Your task to perform on an android device: Clear all items from cart on costco. Search for "bose quietcomfort 35" on costco, select the first entry, and add it to the cart. Image 0: 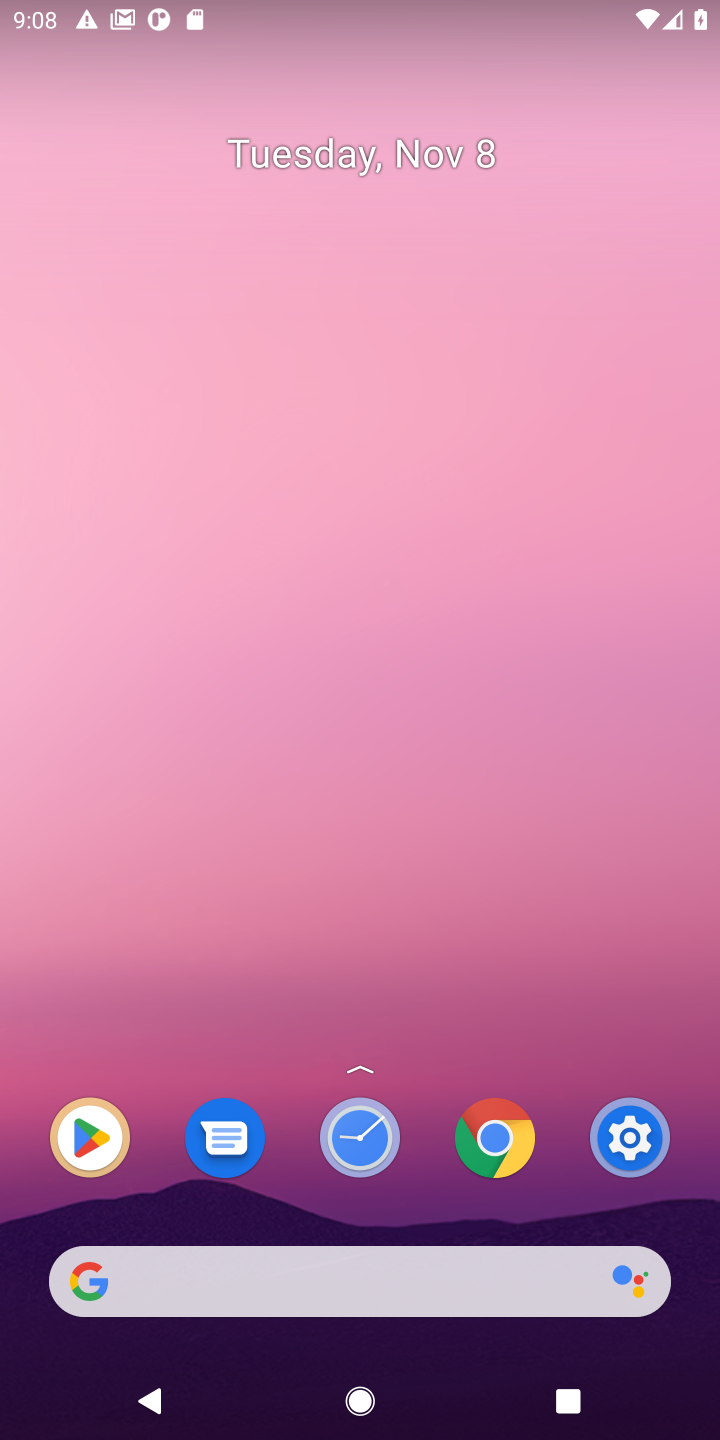
Step 0: drag from (312, 500) to (329, 227)
Your task to perform on an android device: Clear all items from cart on costco. Search for "bose quietcomfort 35" on costco, select the first entry, and add it to the cart. Image 1: 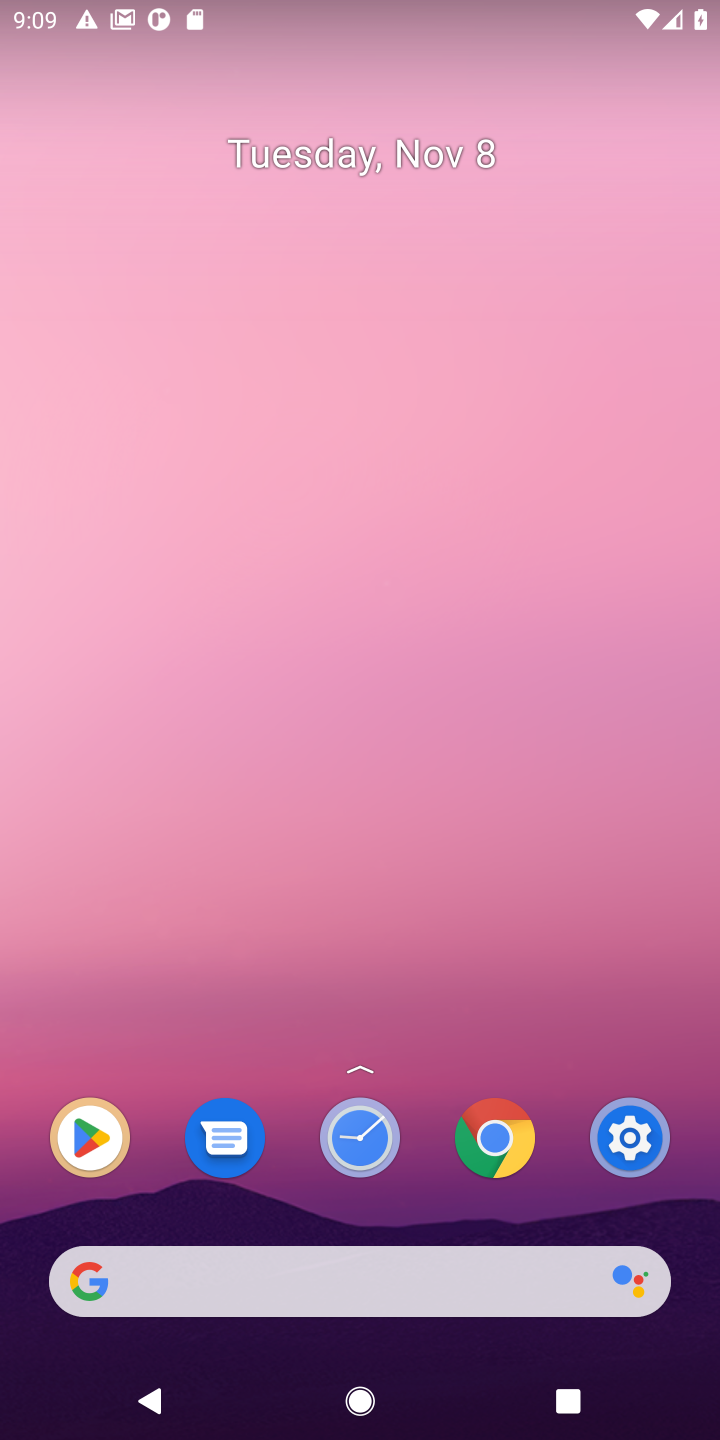
Step 1: drag from (463, 1117) to (560, 274)
Your task to perform on an android device: Clear all items from cart on costco. Search for "bose quietcomfort 35" on costco, select the first entry, and add it to the cart. Image 2: 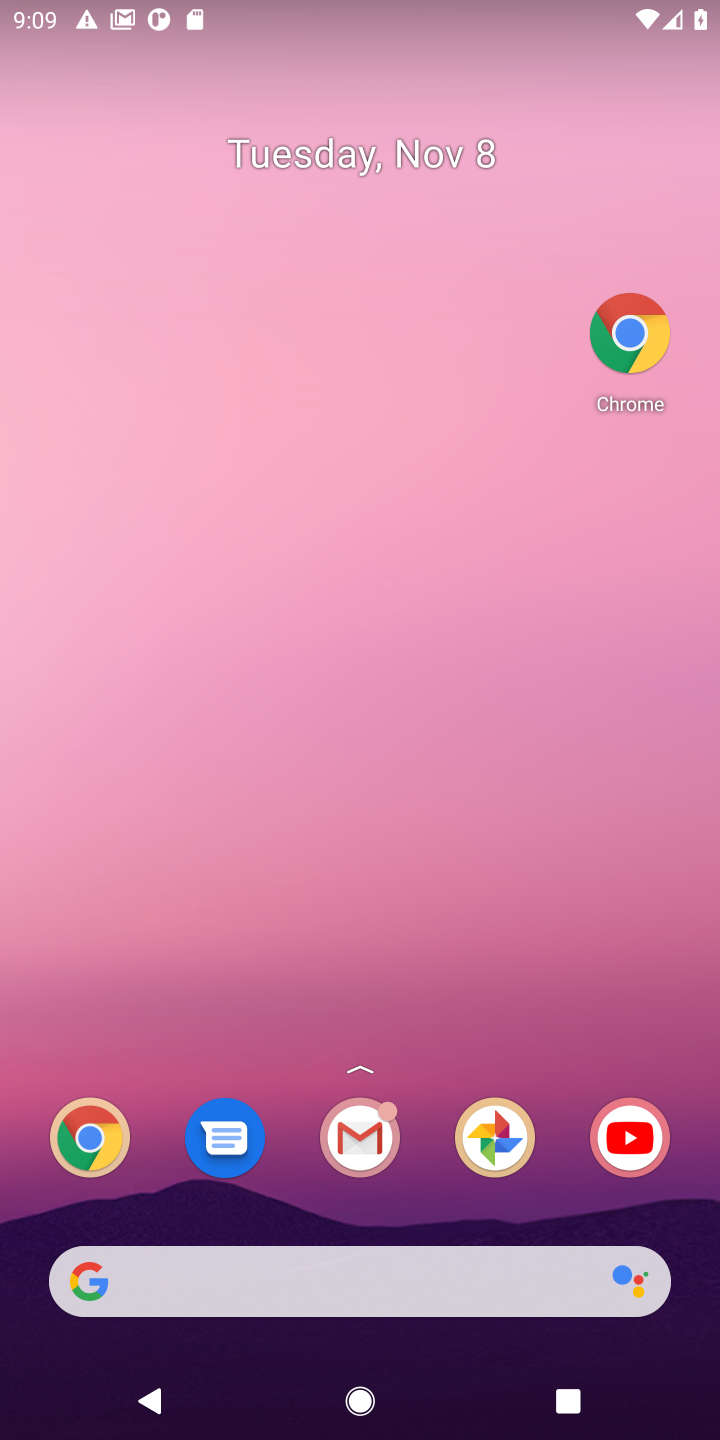
Step 2: drag from (360, 1271) to (402, 280)
Your task to perform on an android device: Clear all items from cart on costco. Search for "bose quietcomfort 35" on costco, select the first entry, and add it to the cart. Image 3: 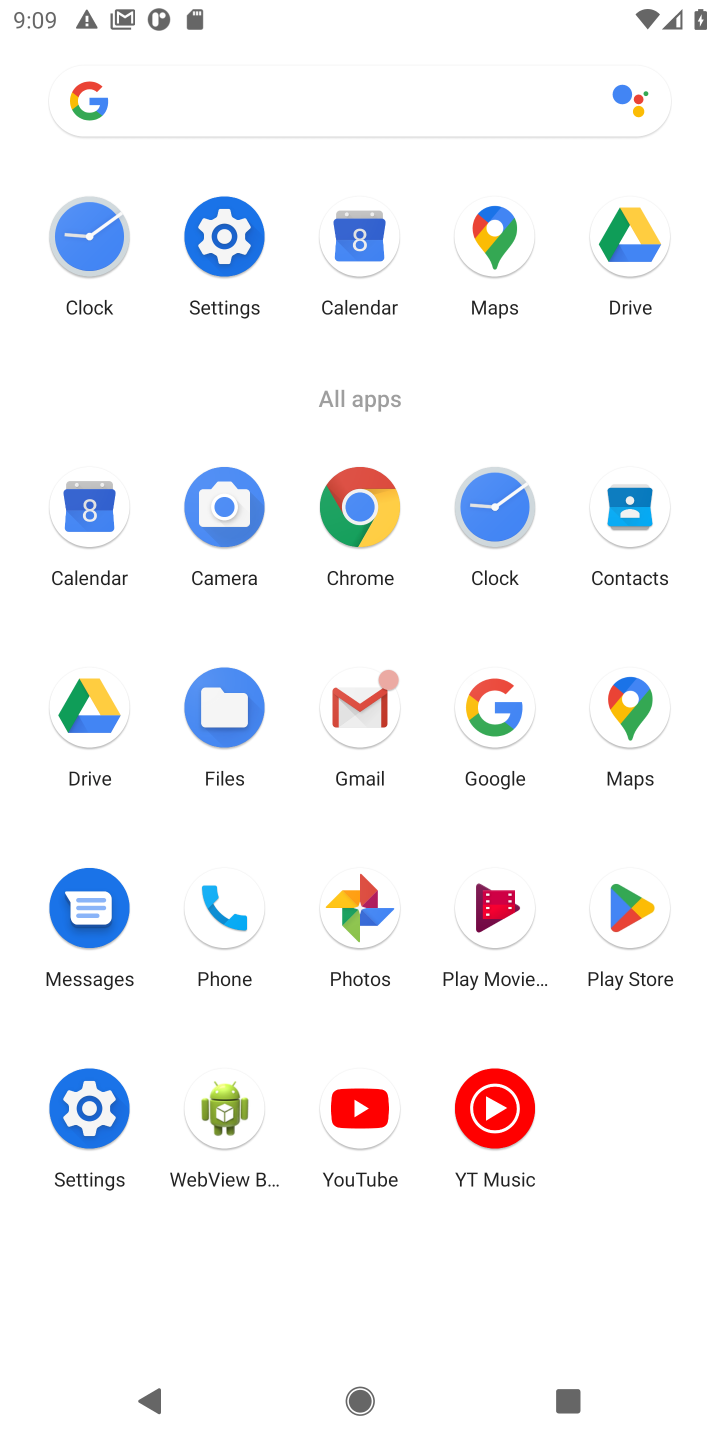
Step 3: click (363, 509)
Your task to perform on an android device: Clear all items from cart on costco. Search for "bose quietcomfort 35" on costco, select the first entry, and add it to the cart. Image 4: 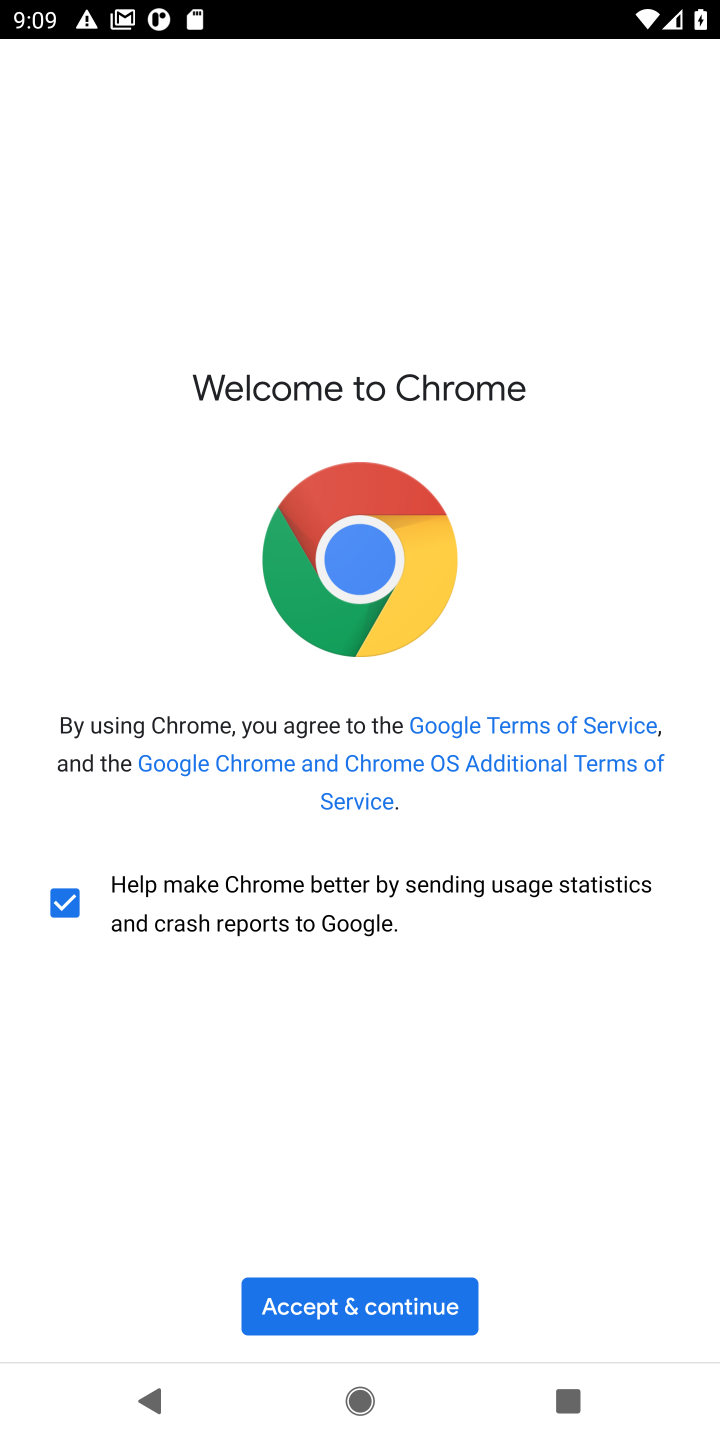
Step 4: click (421, 1324)
Your task to perform on an android device: Clear all items from cart on costco. Search for "bose quietcomfort 35" on costco, select the first entry, and add it to the cart. Image 5: 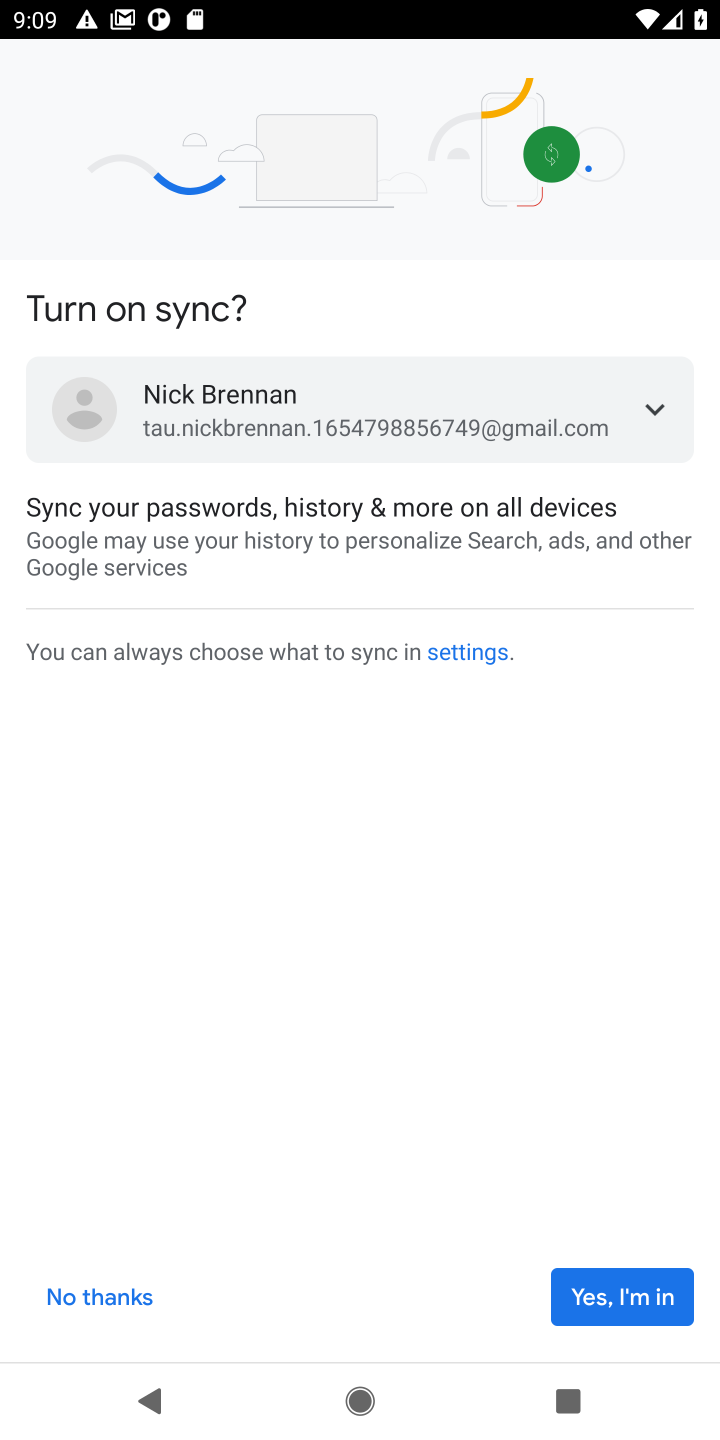
Step 5: click (606, 1283)
Your task to perform on an android device: Clear all items from cart on costco. Search for "bose quietcomfort 35" on costco, select the first entry, and add it to the cart. Image 6: 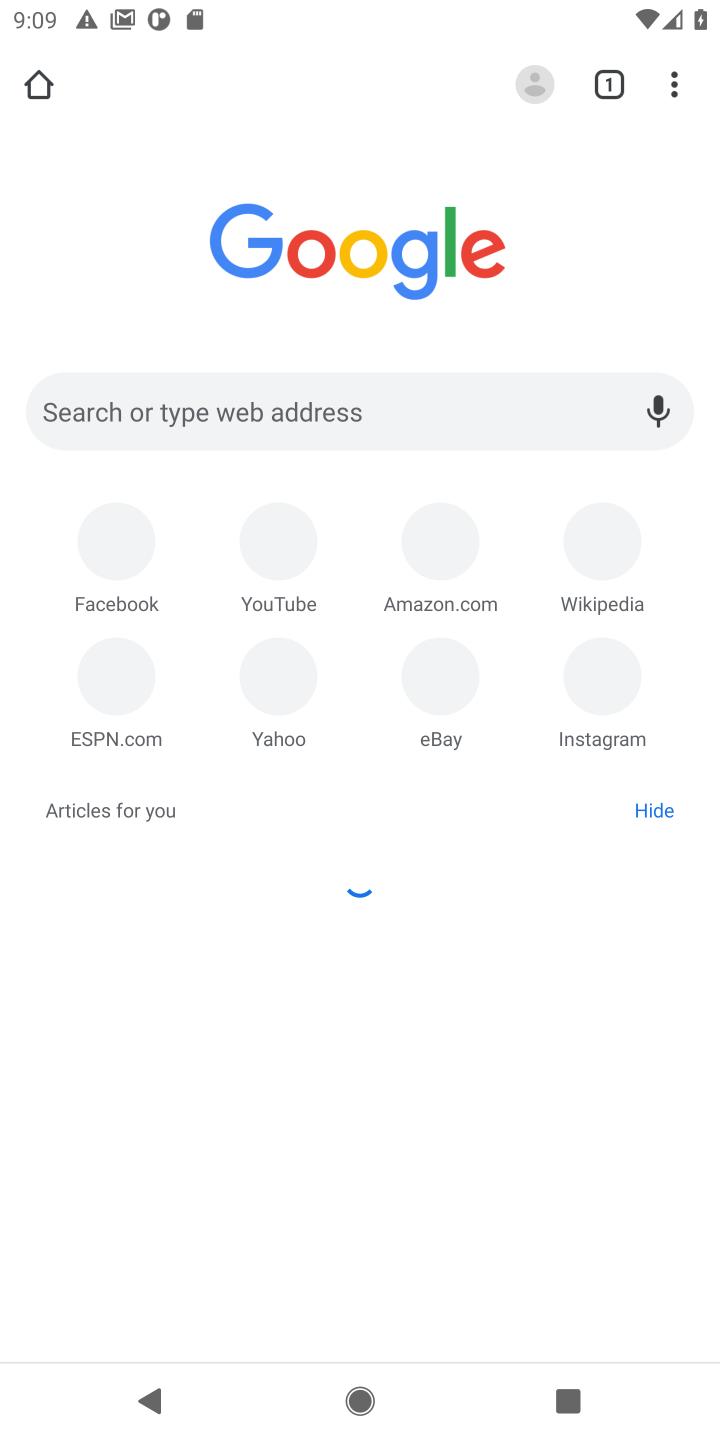
Step 6: click (254, 400)
Your task to perform on an android device: Clear all items from cart on costco. Search for "bose quietcomfort 35" on costco, select the first entry, and add it to the cart. Image 7: 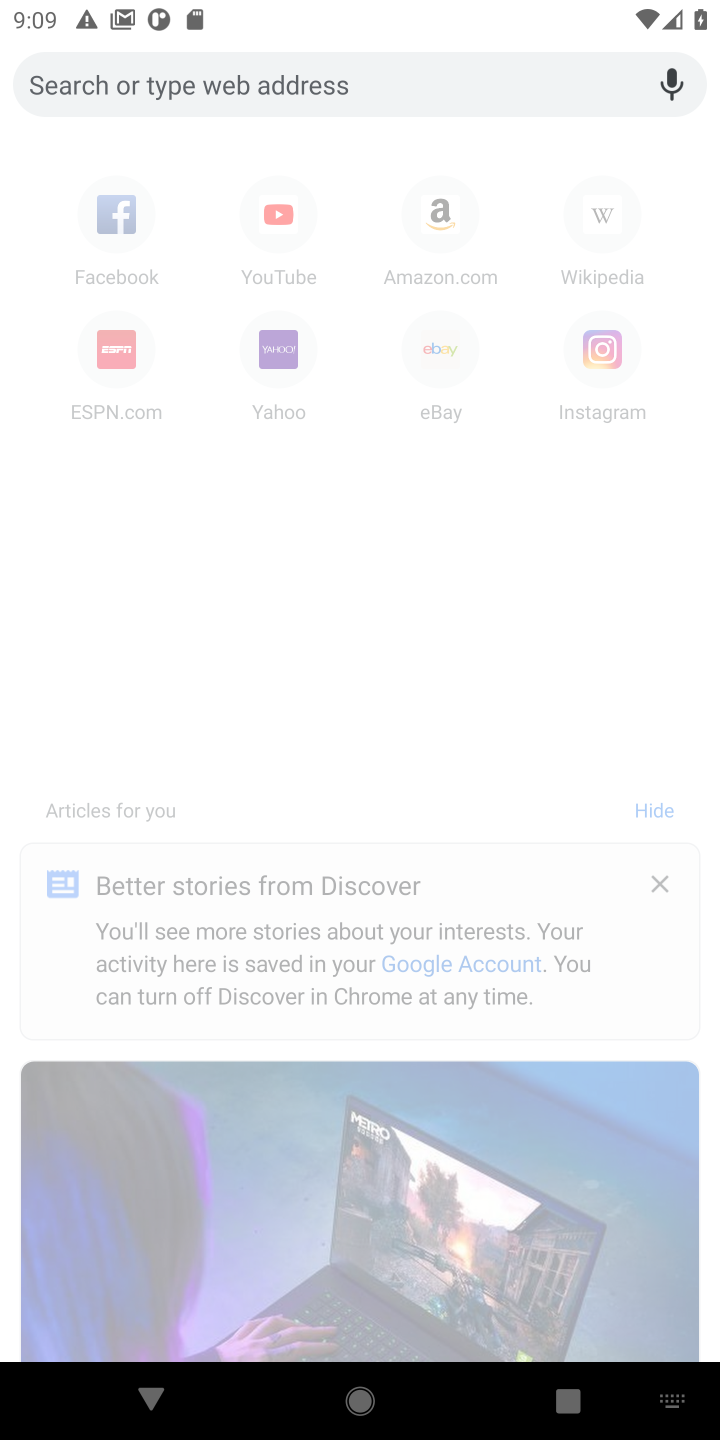
Step 7: press enter
Your task to perform on an android device: Clear all items from cart on costco. Search for "bose quietcomfort 35" on costco, select the first entry, and add it to the cart. Image 8: 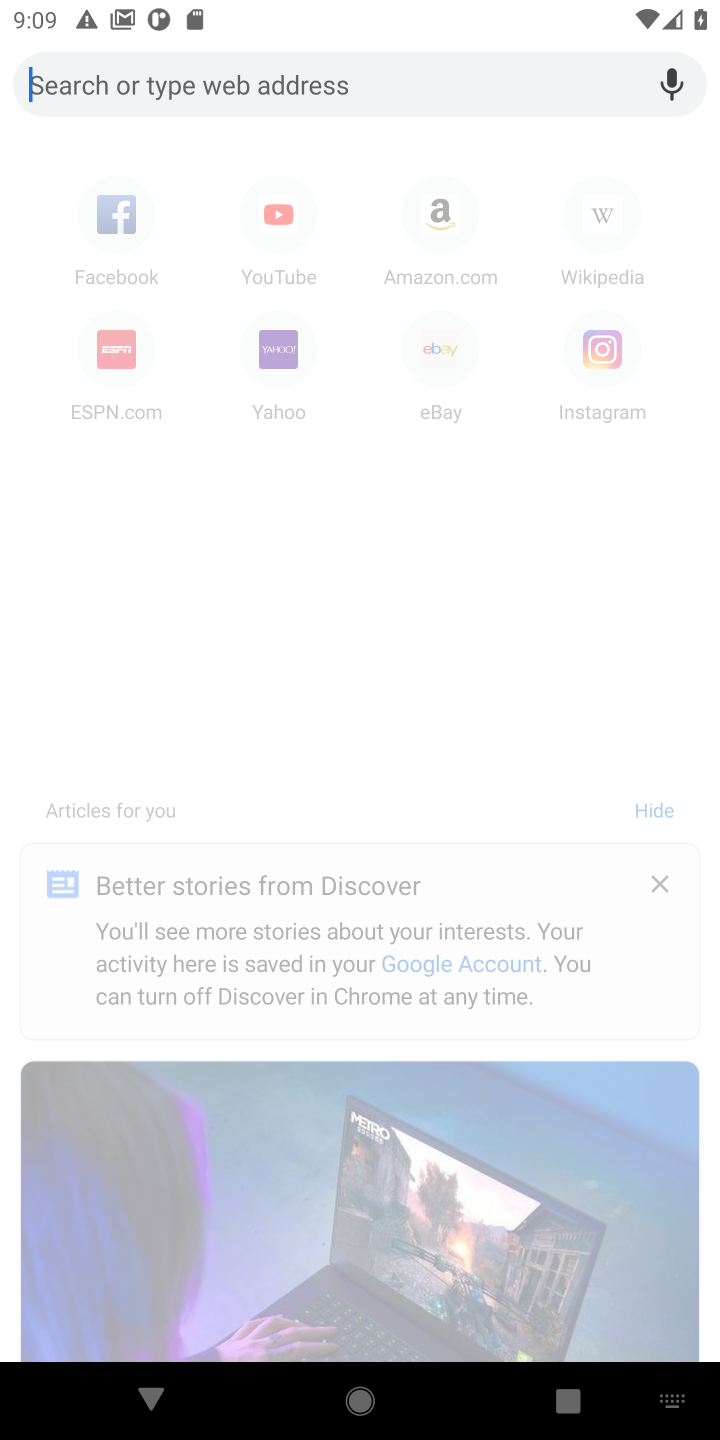
Step 8: type "costco."
Your task to perform on an android device: Clear all items from cart on costco. Search for "bose quietcomfort 35" on costco, select the first entry, and add it to the cart. Image 9: 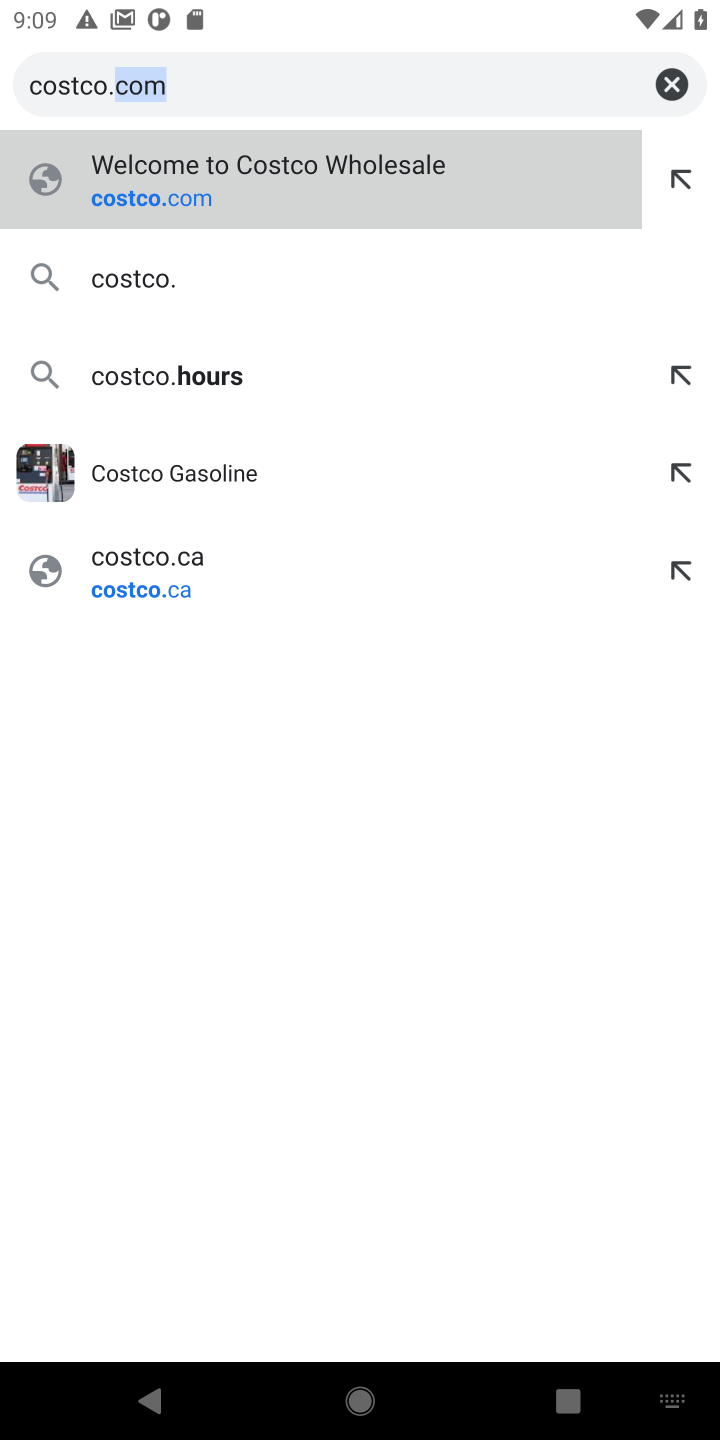
Step 9: press enter
Your task to perform on an android device: Clear all items from cart on costco. Search for "bose quietcomfort 35" on costco, select the first entry, and add it to the cart. Image 10: 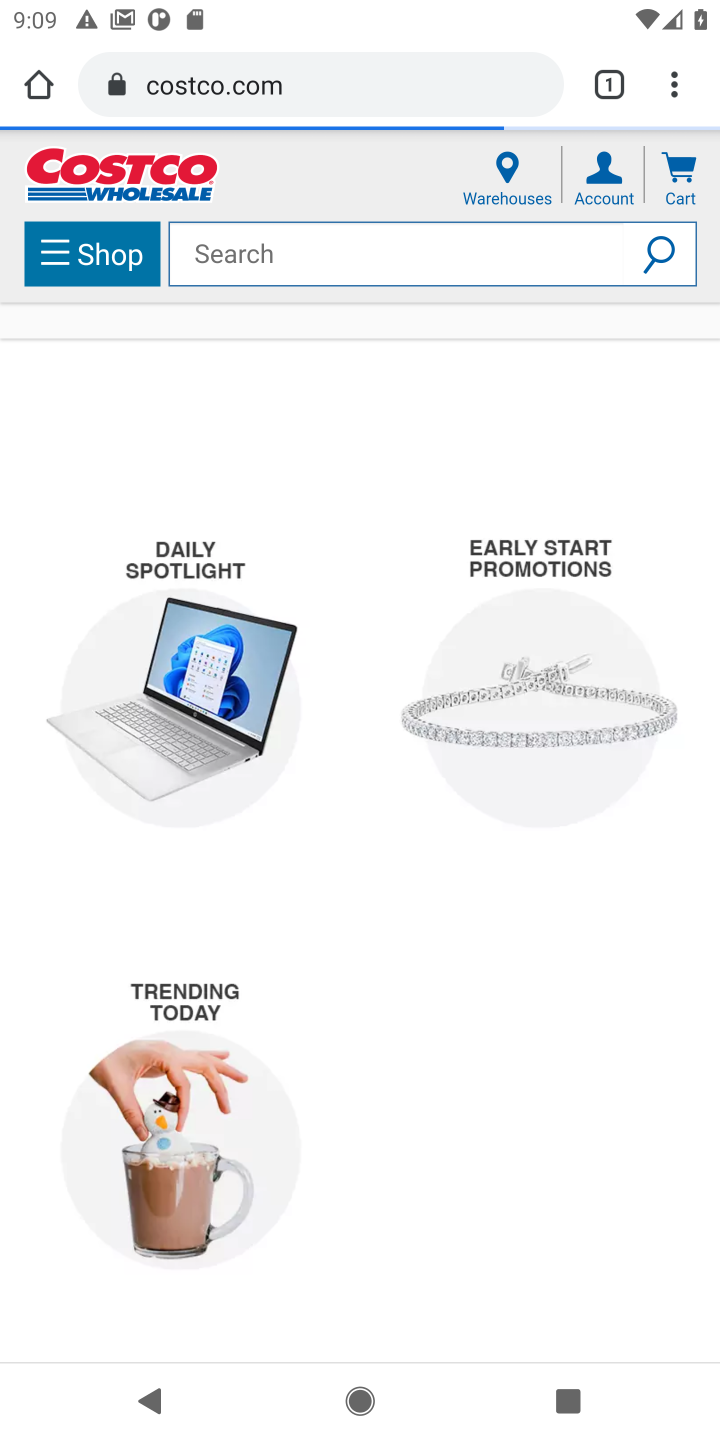
Step 10: click (299, 261)
Your task to perform on an android device: Clear all items from cart on costco. Search for "bose quietcomfort 35" on costco, select the first entry, and add it to the cart. Image 11: 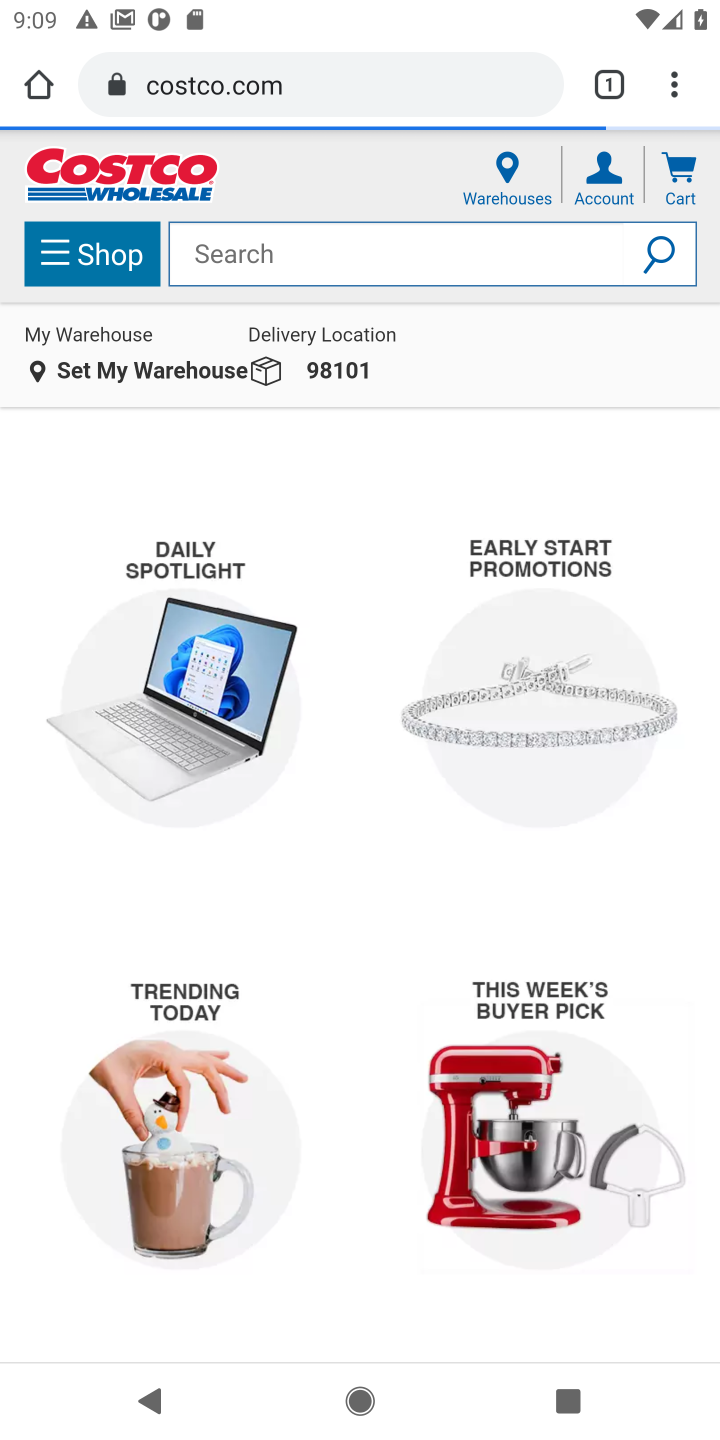
Step 11: type "bose quietcomfort 35"
Your task to perform on an android device: Clear all items from cart on costco. Search for "bose quietcomfort 35" on costco, select the first entry, and add it to the cart. Image 12: 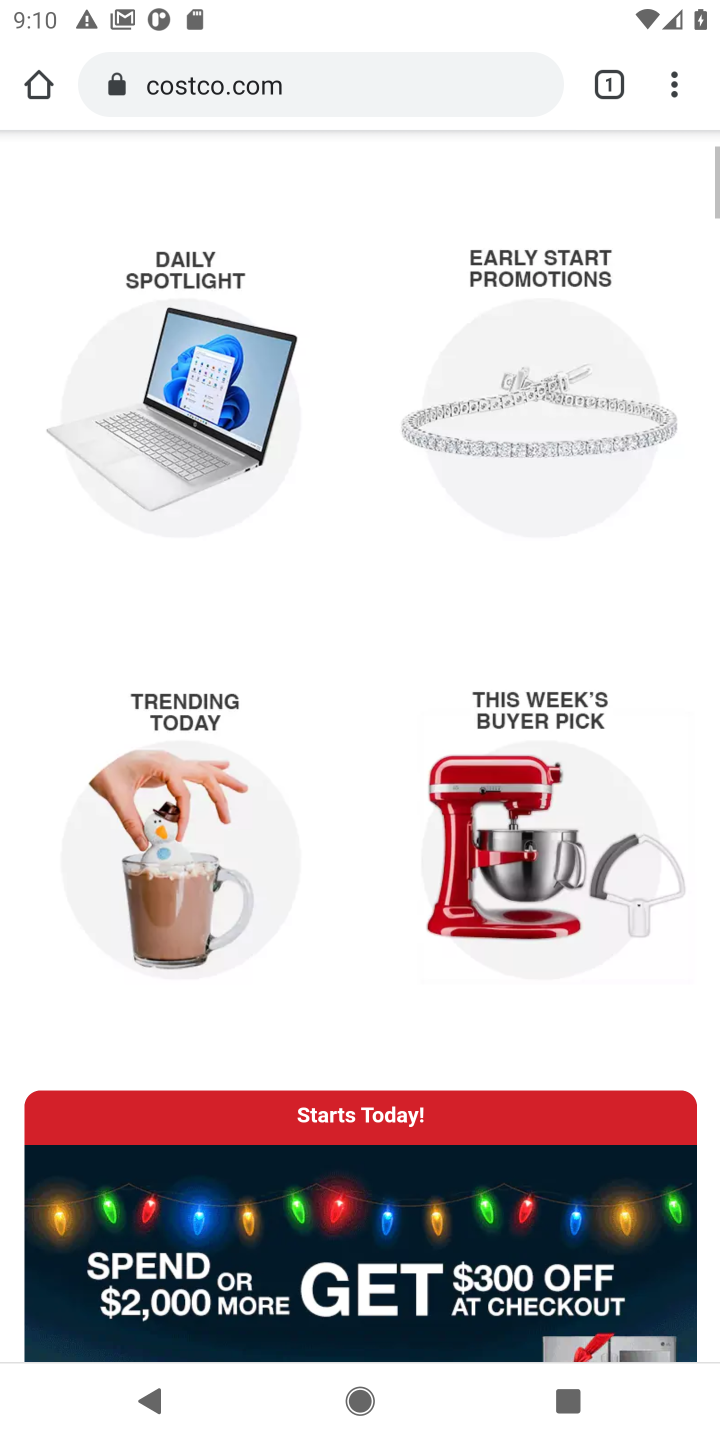
Step 12: press enter
Your task to perform on an android device: Clear all items from cart on costco. Search for "bose quietcomfort 35" on costco, select the first entry, and add it to the cart. Image 13: 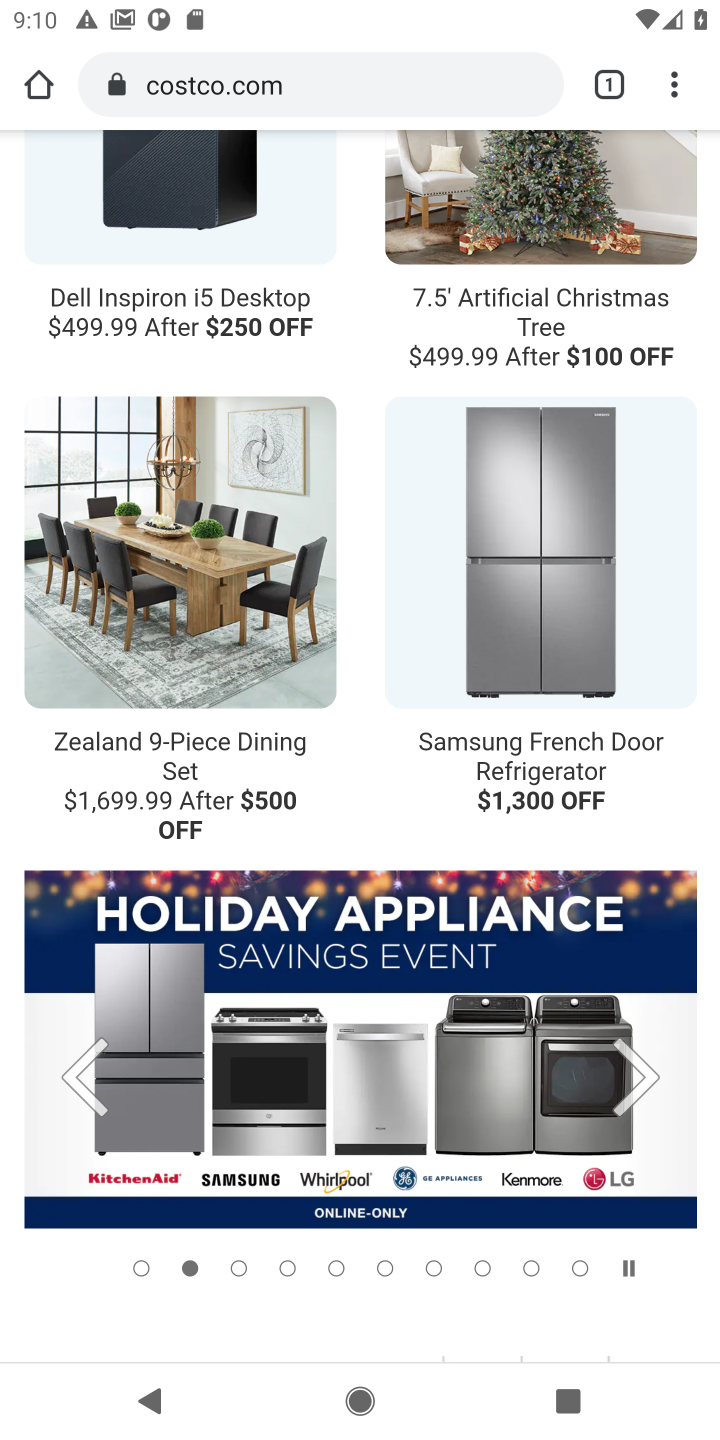
Step 13: drag from (475, 883) to (560, 1130)
Your task to perform on an android device: Clear all items from cart on costco. Search for "bose quietcomfort 35" on costco, select the first entry, and add it to the cart. Image 14: 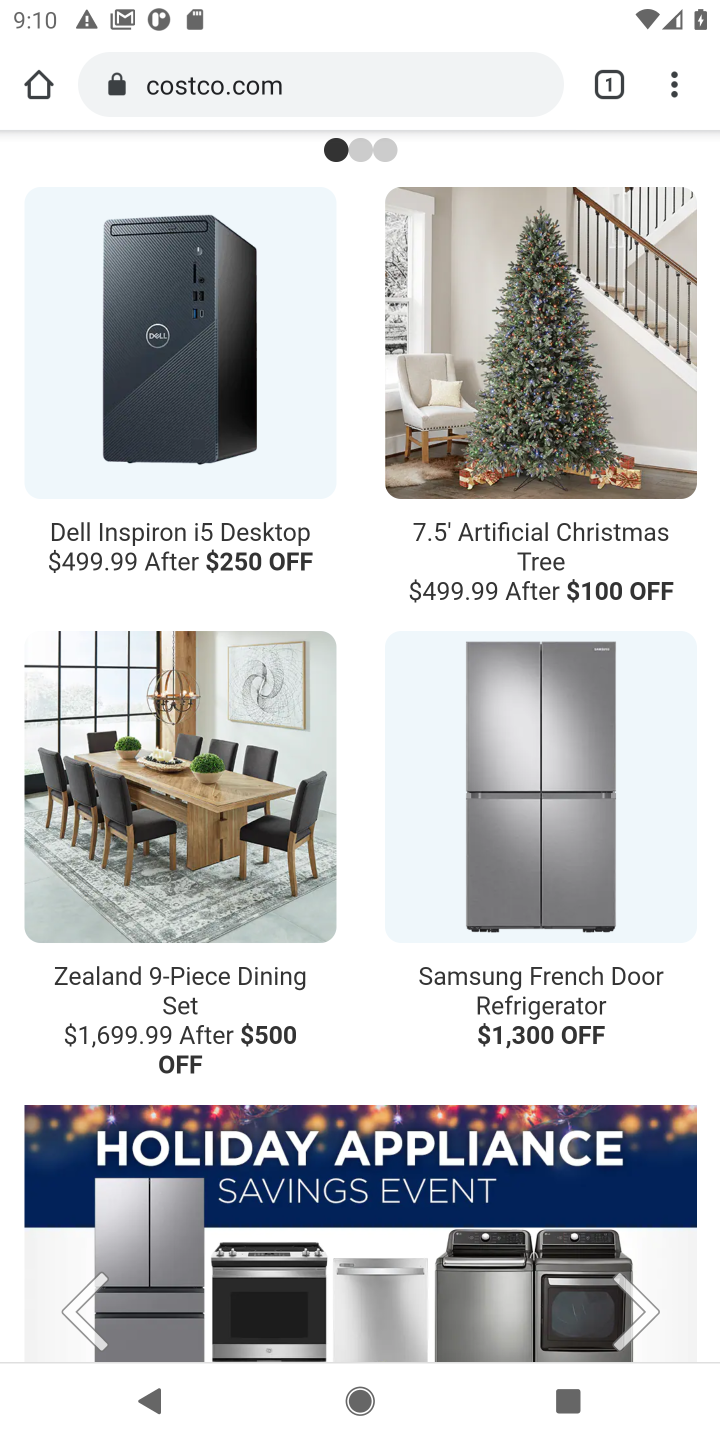
Step 14: drag from (361, 550) to (532, 1199)
Your task to perform on an android device: Clear all items from cart on costco. Search for "bose quietcomfort 35" on costco, select the first entry, and add it to the cart. Image 15: 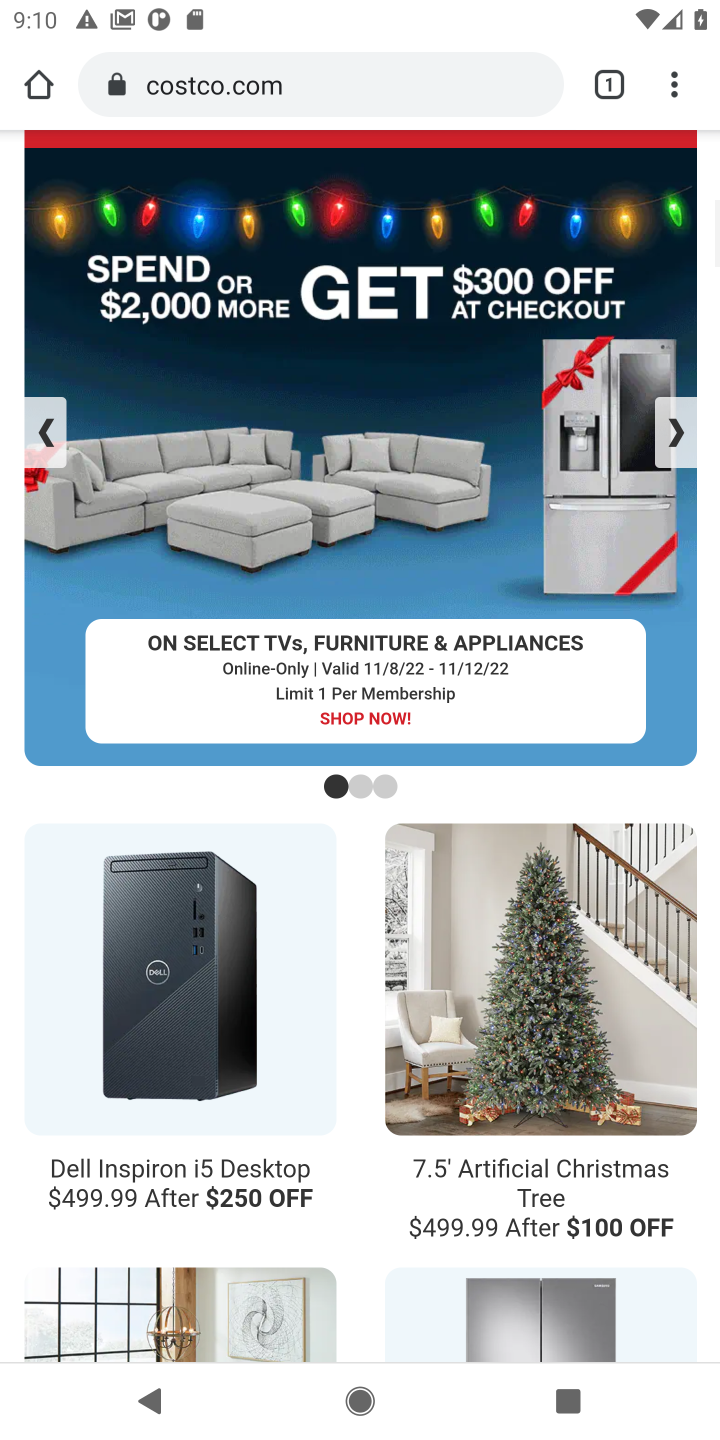
Step 15: click (439, 1119)
Your task to perform on an android device: Clear all items from cart on costco. Search for "bose quietcomfort 35" on costco, select the first entry, and add it to the cart. Image 16: 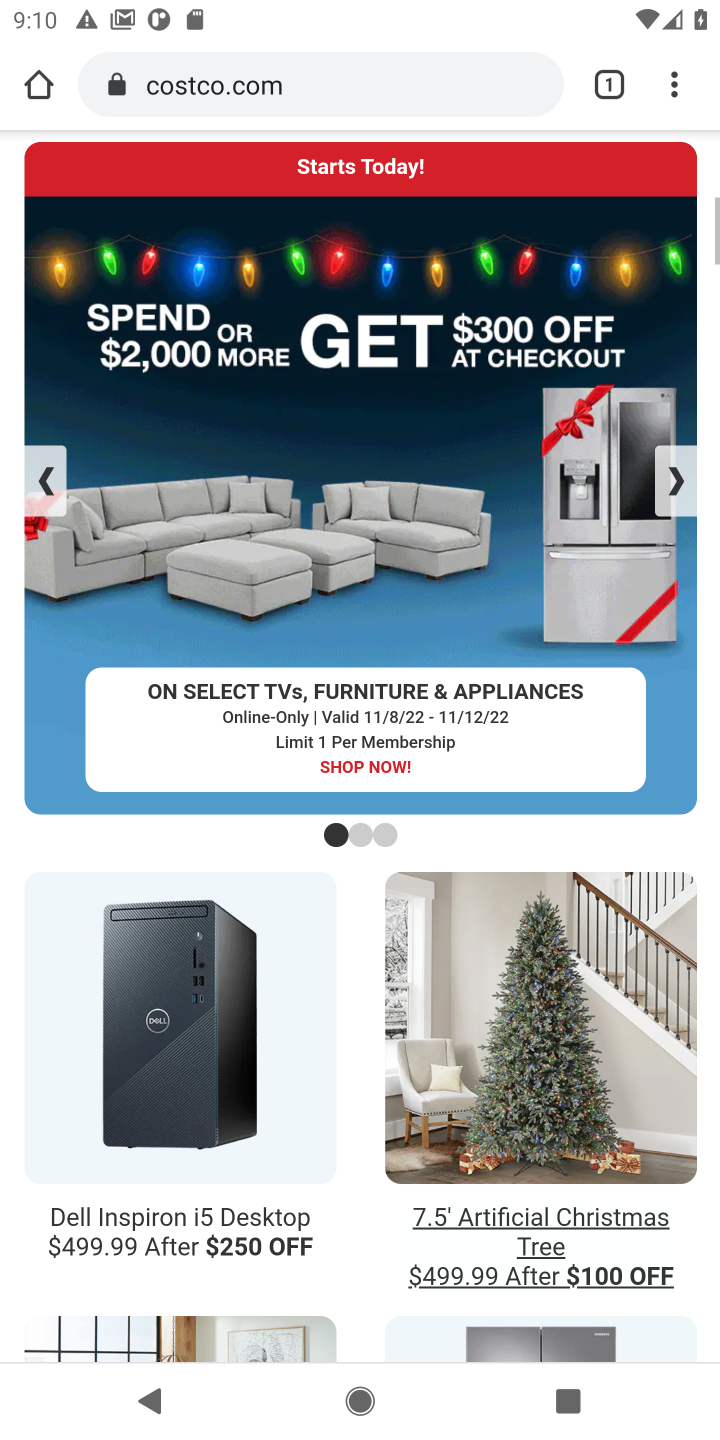
Step 16: drag from (338, 655) to (440, 1057)
Your task to perform on an android device: Clear all items from cart on costco. Search for "bose quietcomfort 35" on costco, select the first entry, and add it to the cart. Image 17: 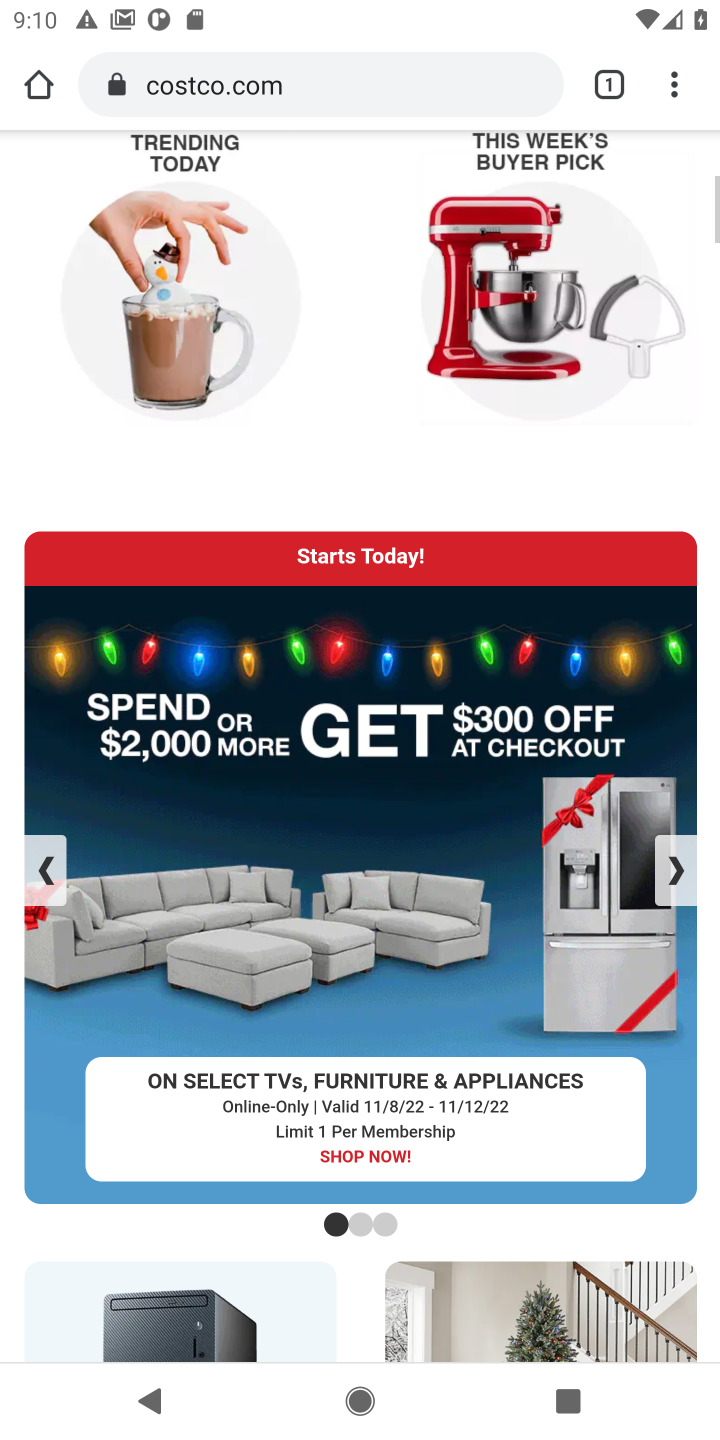
Step 17: drag from (445, 798) to (486, 1108)
Your task to perform on an android device: Clear all items from cart on costco. Search for "bose quietcomfort 35" on costco, select the first entry, and add it to the cart. Image 18: 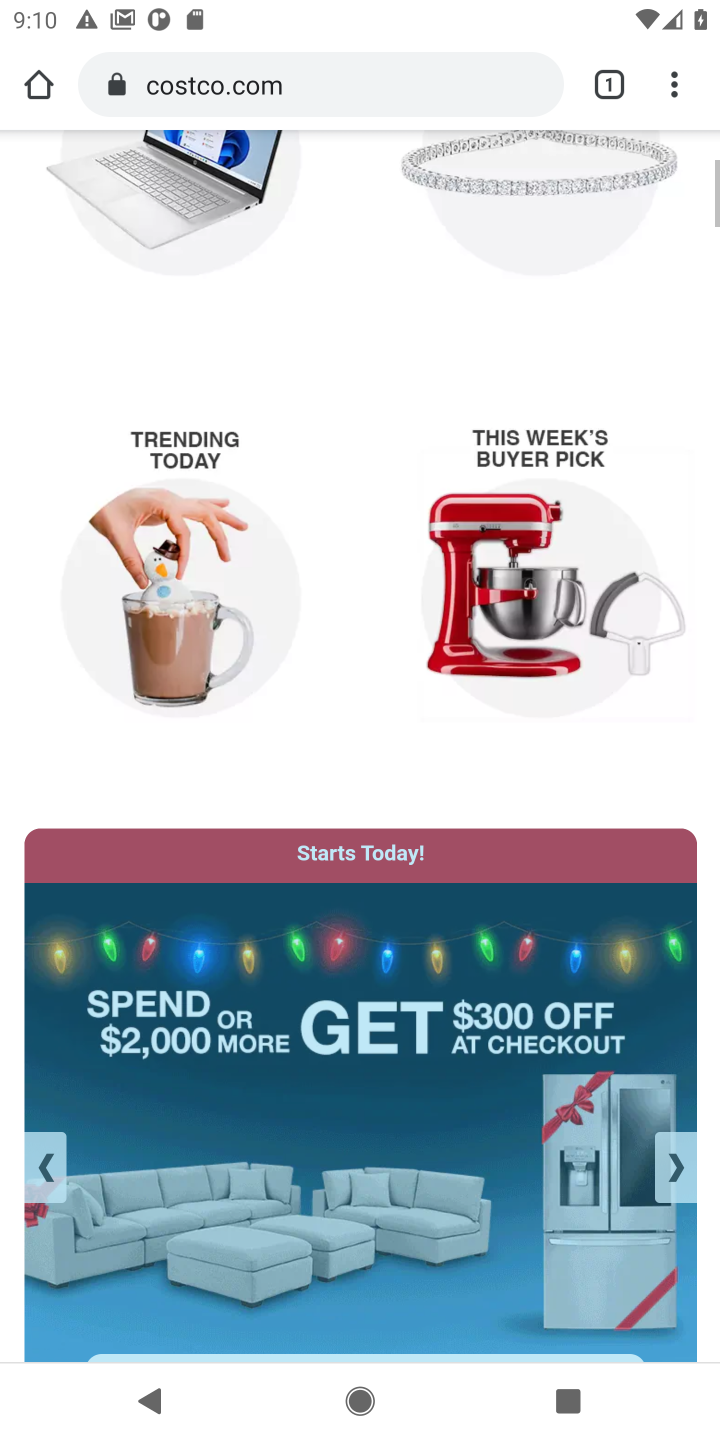
Step 18: drag from (392, 417) to (539, 1087)
Your task to perform on an android device: Clear all items from cart on costco. Search for "bose quietcomfort 35" on costco, select the first entry, and add it to the cart. Image 19: 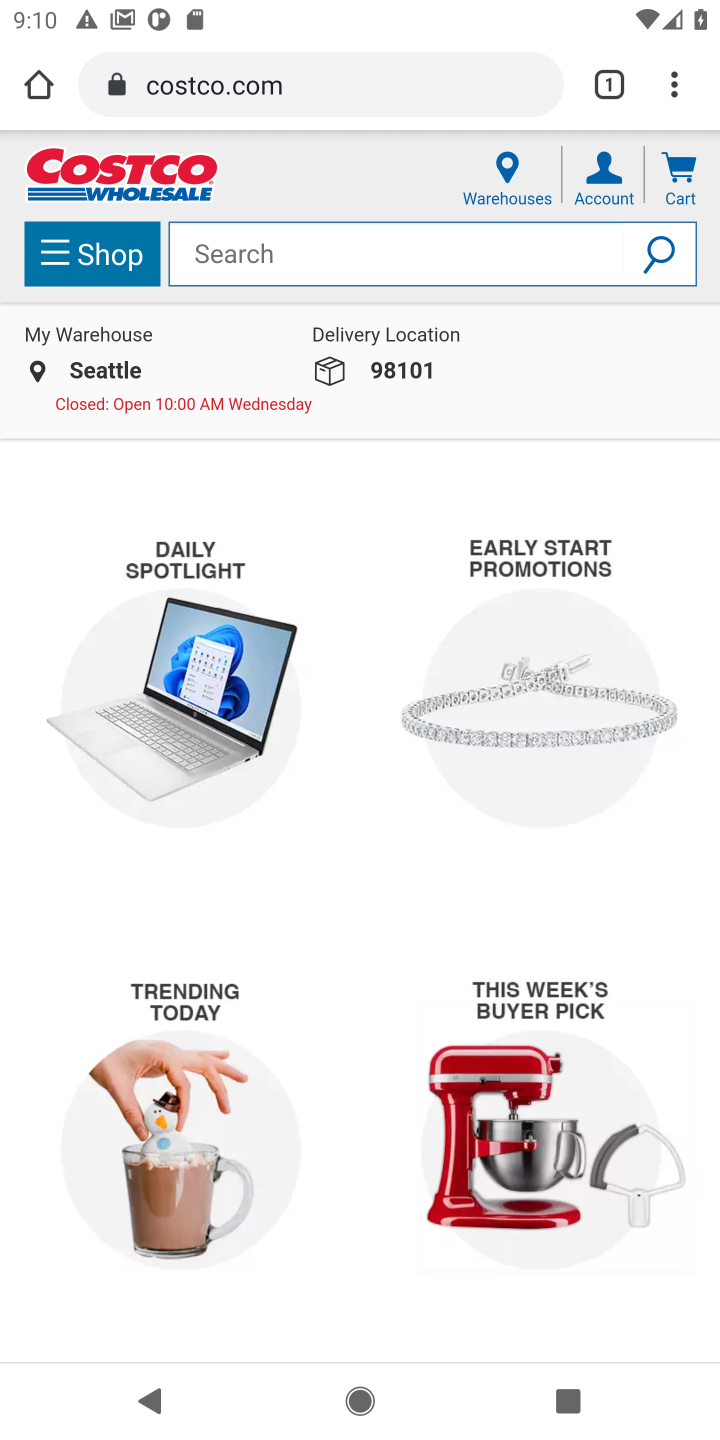
Step 19: click (414, 1047)
Your task to perform on an android device: Clear all items from cart on costco. Search for "bose quietcomfort 35" on costco, select the first entry, and add it to the cart. Image 20: 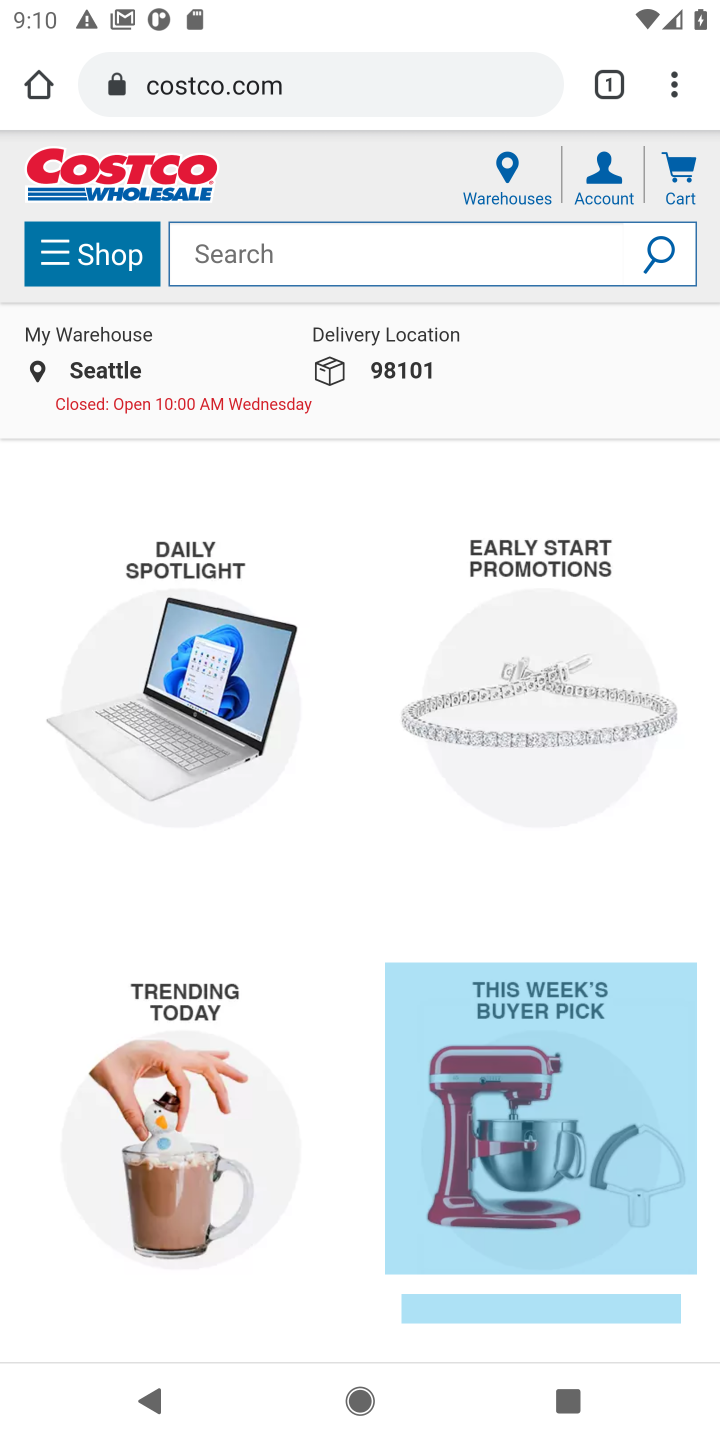
Step 20: click (268, 255)
Your task to perform on an android device: Clear all items from cart on costco. Search for "bose quietcomfort 35" on costco, select the first entry, and add it to the cart. Image 21: 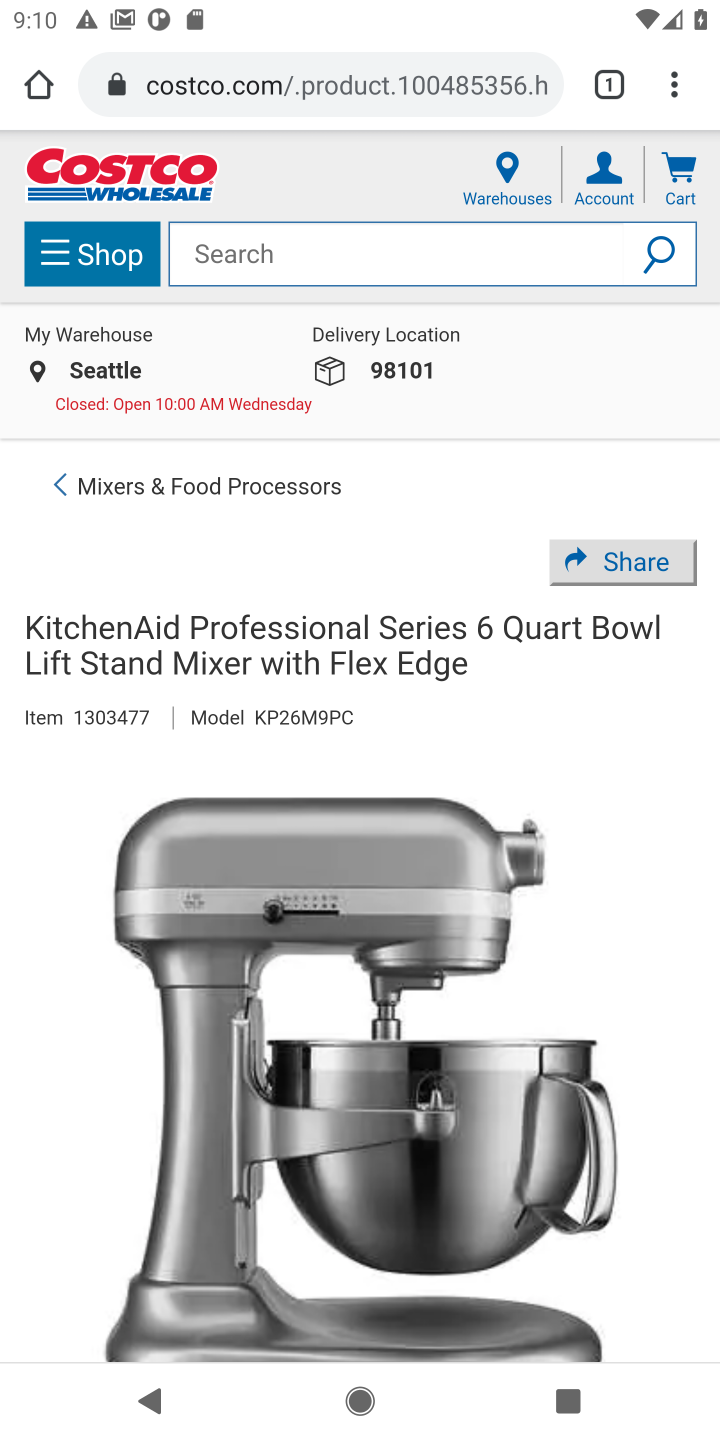
Step 21: click (255, 267)
Your task to perform on an android device: Clear all items from cart on costco. Search for "bose quietcomfort 35" on costco, select the first entry, and add it to the cart. Image 22: 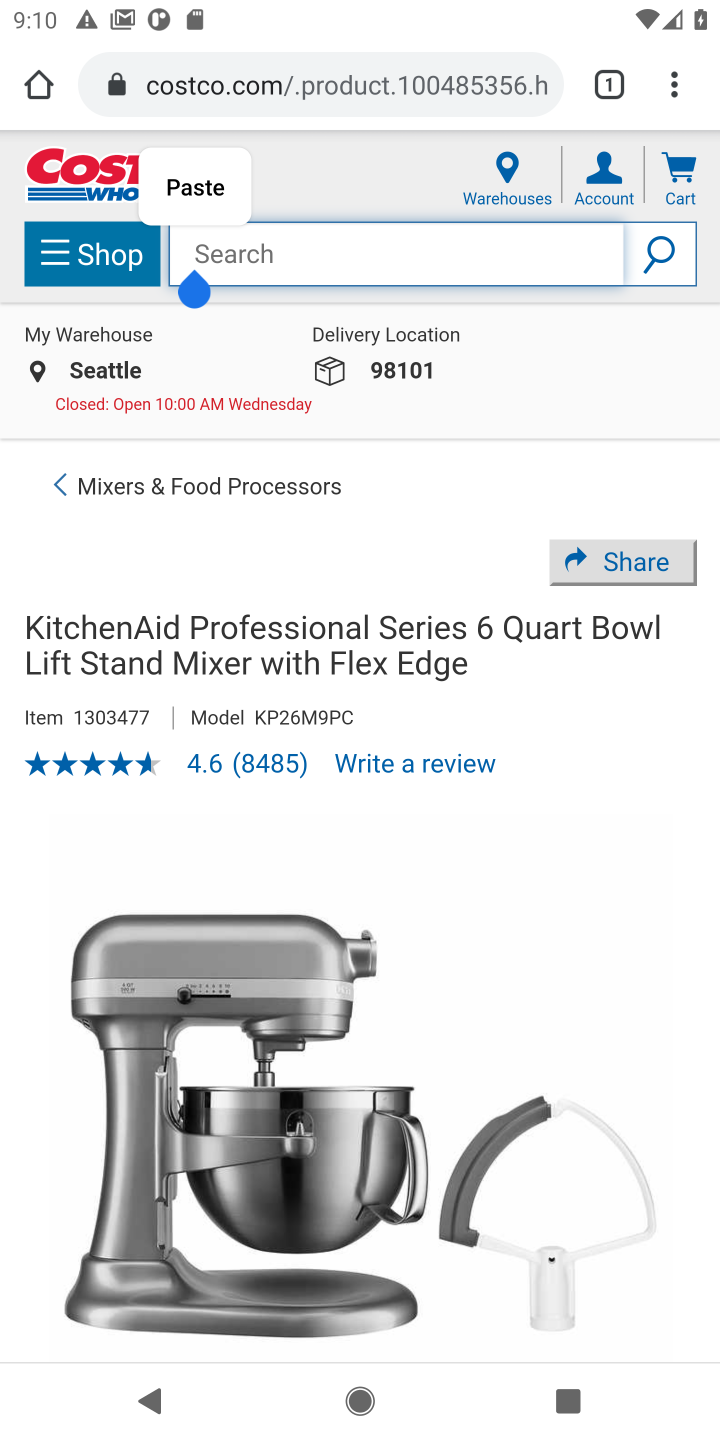
Step 22: type "bose quietcomfort 35"
Your task to perform on an android device: Clear all items from cart on costco. Search for "bose quietcomfort 35" on costco, select the first entry, and add it to the cart. Image 23: 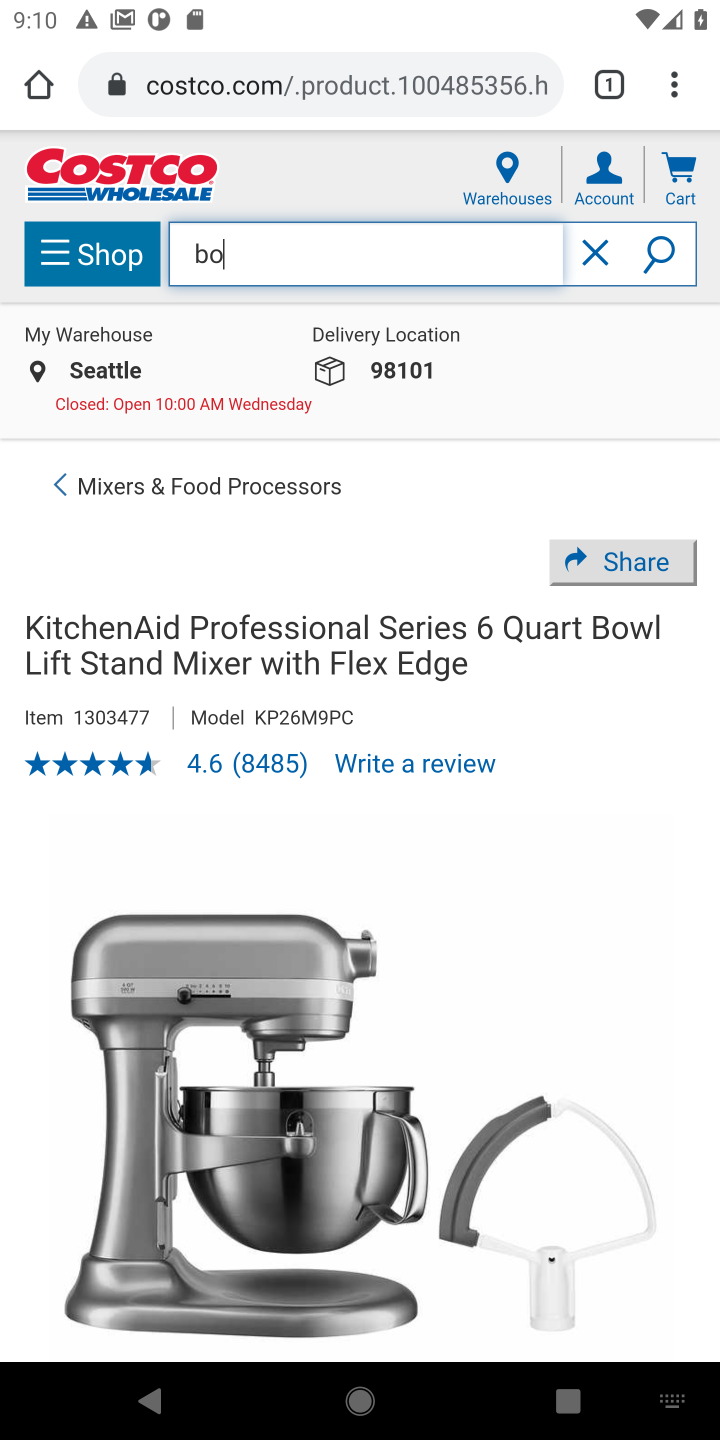
Step 23: press enter
Your task to perform on an android device: Clear all items from cart on costco. Search for "bose quietcomfort 35" on costco, select the first entry, and add it to the cart. Image 24: 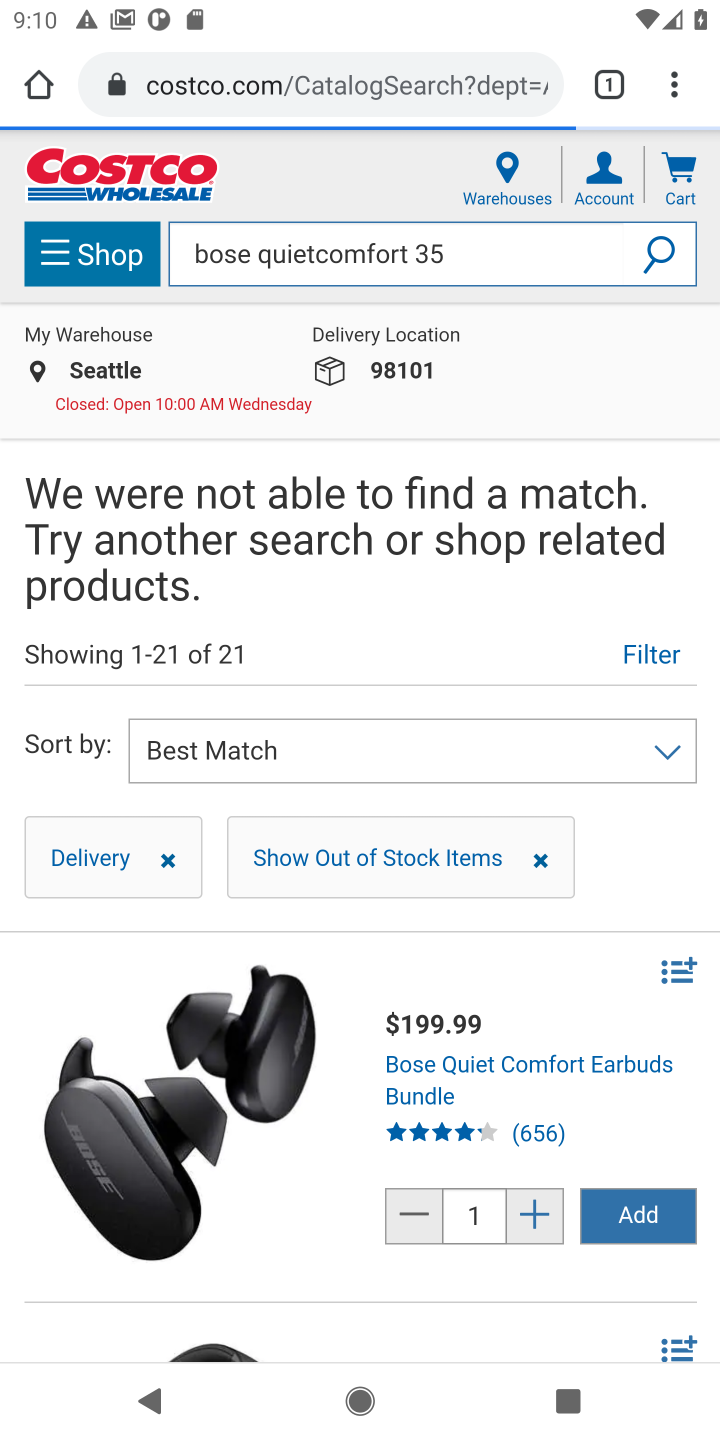
Step 24: click (652, 1216)
Your task to perform on an android device: Clear all items from cart on costco. Search for "bose quietcomfort 35" on costco, select the first entry, and add it to the cart. Image 25: 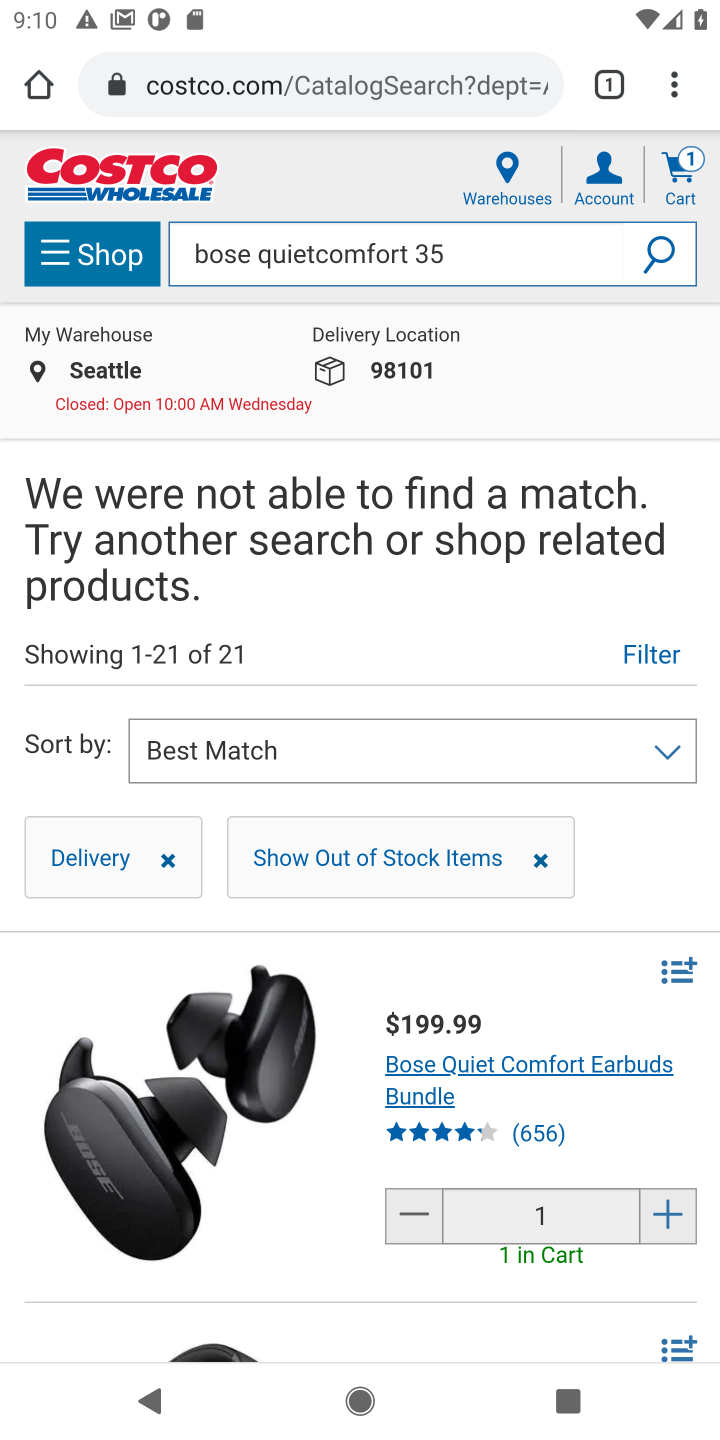
Step 25: click (699, 164)
Your task to perform on an android device: Clear all items from cart on costco. Search for "bose quietcomfort 35" on costco, select the first entry, and add it to the cart. Image 26: 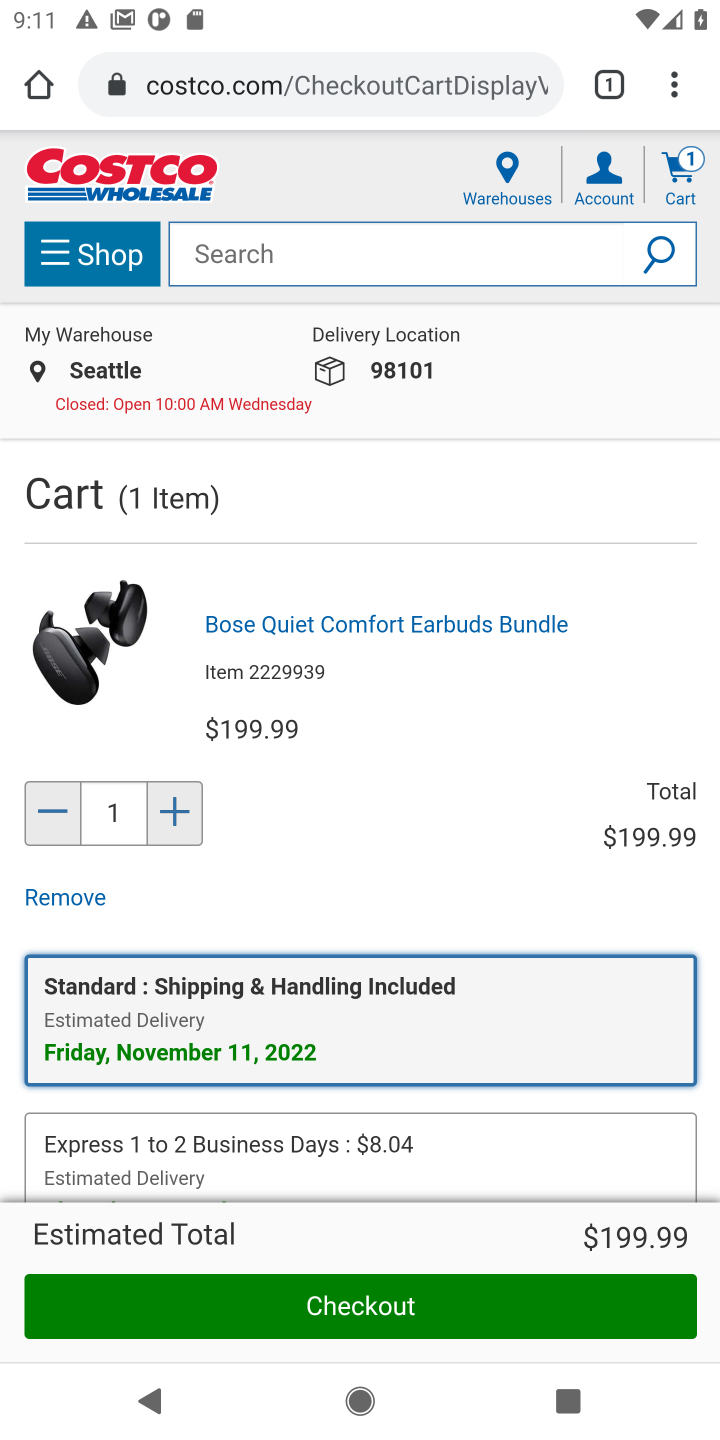
Step 26: click (362, 1297)
Your task to perform on an android device: Clear all items from cart on costco. Search for "bose quietcomfort 35" on costco, select the first entry, and add it to the cart. Image 27: 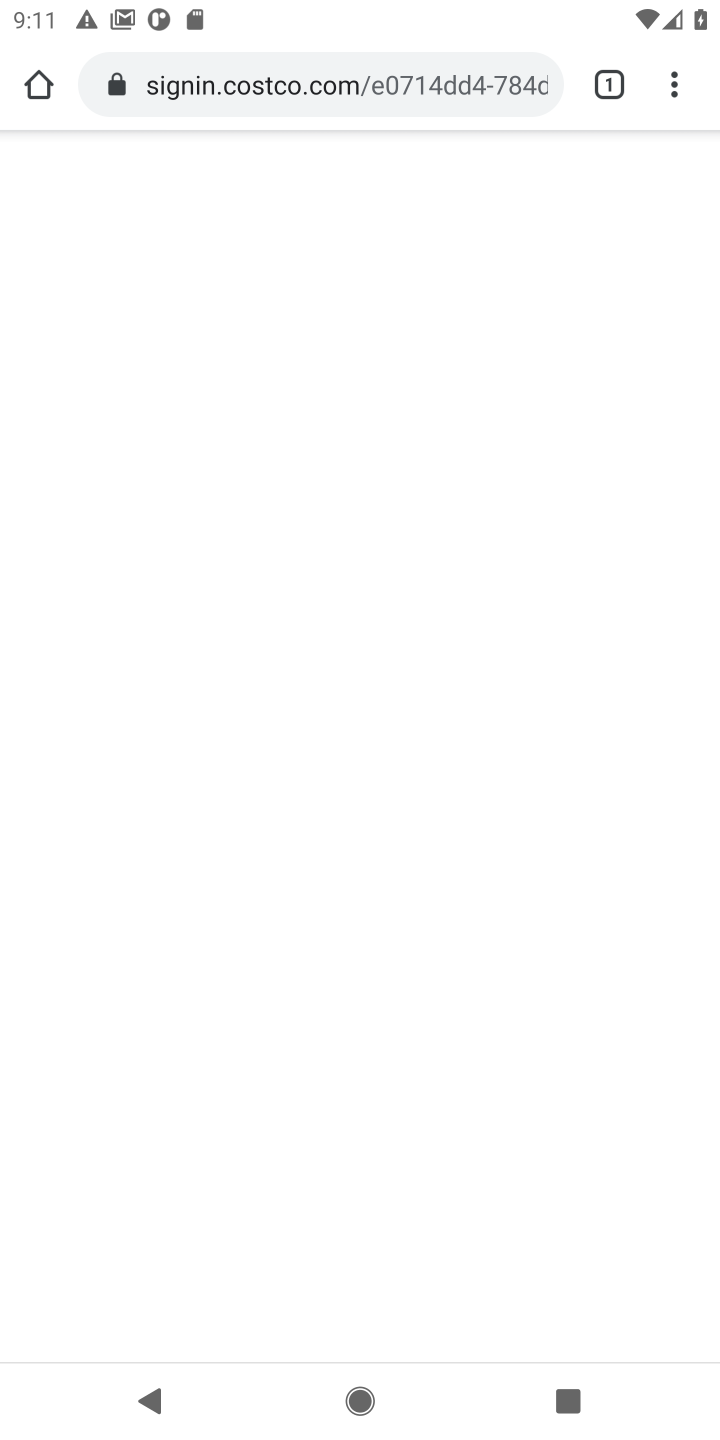
Step 27: task complete